Your task to perform on an android device: change text size in settings app Image 0: 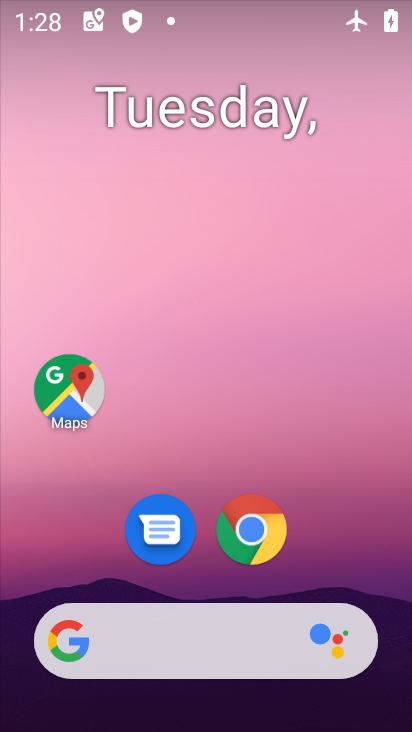
Step 0: drag from (332, 478) to (294, 6)
Your task to perform on an android device: change text size in settings app Image 1: 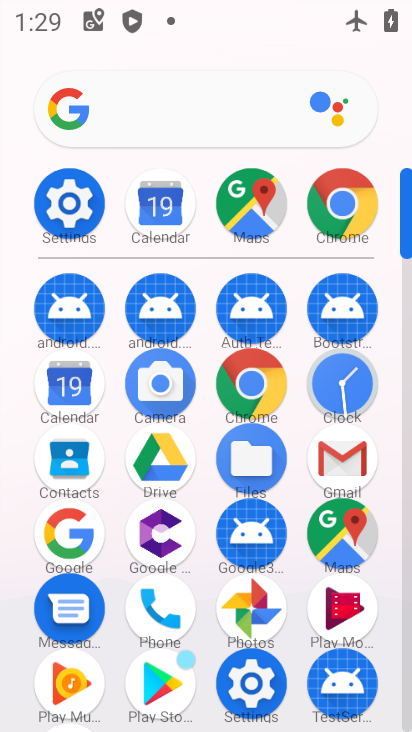
Step 1: click (71, 274)
Your task to perform on an android device: change text size in settings app Image 2: 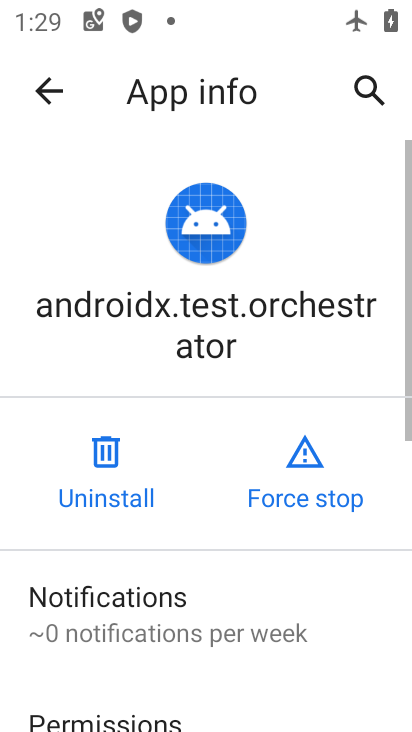
Step 2: press back button
Your task to perform on an android device: change text size in settings app Image 3: 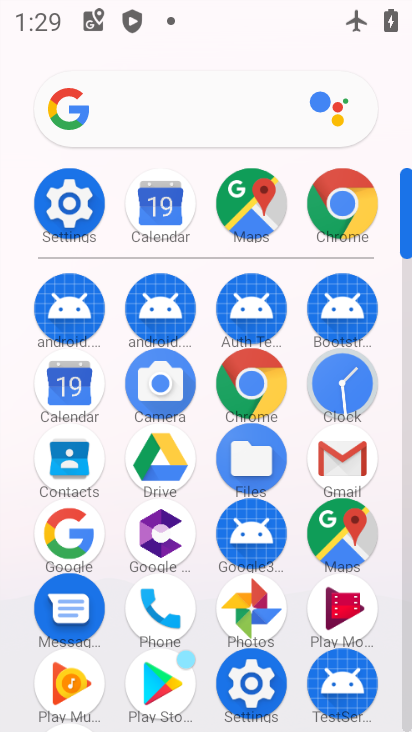
Step 3: click (79, 205)
Your task to perform on an android device: change text size in settings app Image 4: 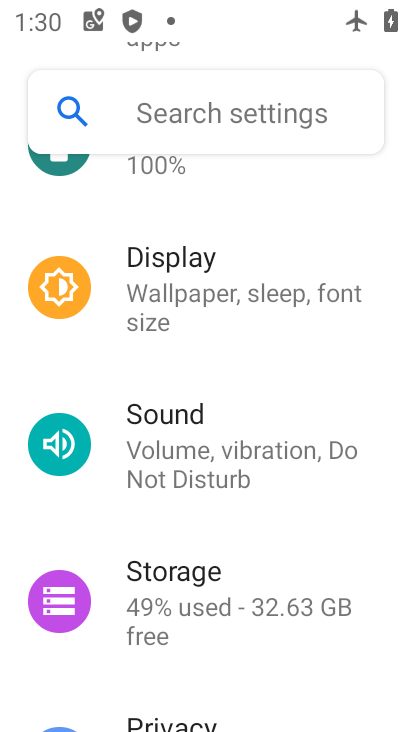
Step 4: click (290, 287)
Your task to perform on an android device: change text size in settings app Image 5: 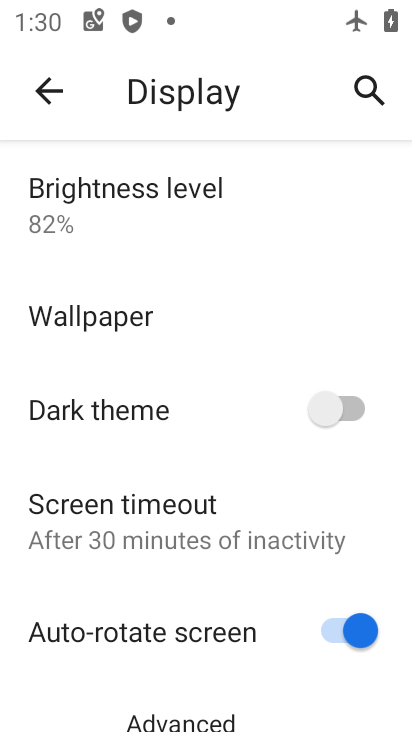
Step 5: drag from (238, 603) to (221, 211)
Your task to perform on an android device: change text size in settings app Image 6: 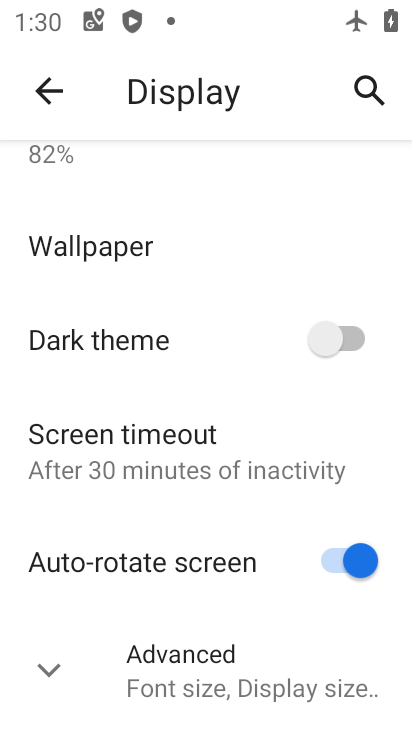
Step 6: click (313, 673)
Your task to perform on an android device: change text size in settings app Image 7: 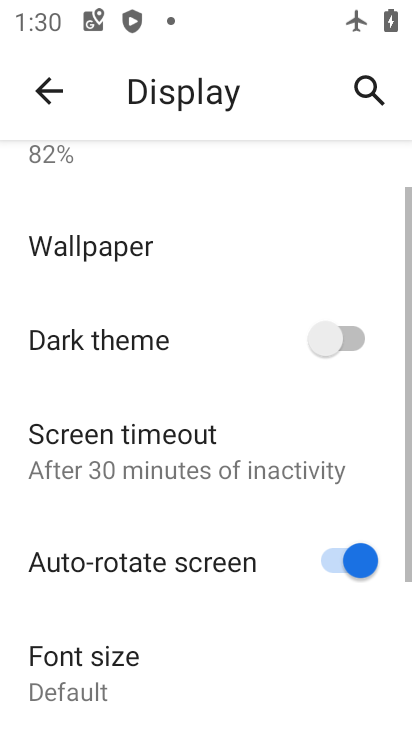
Step 7: drag from (313, 673) to (250, 282)
Your task to perform on an android device: change text size in settings app Image 8: 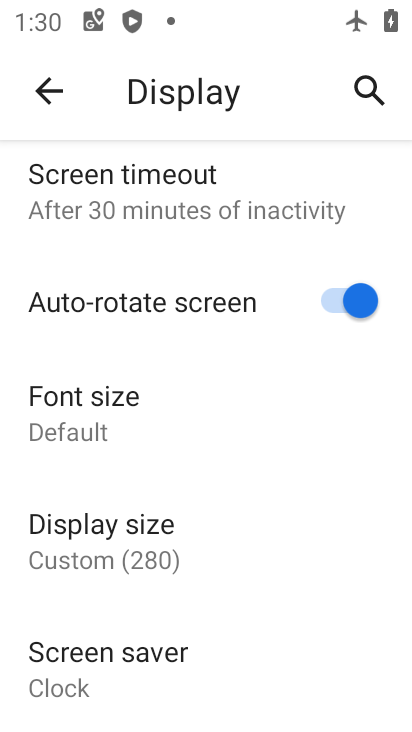
Step 8: click (265, 427)
Your task to perform on an android device: change text size in settings app Image 9: 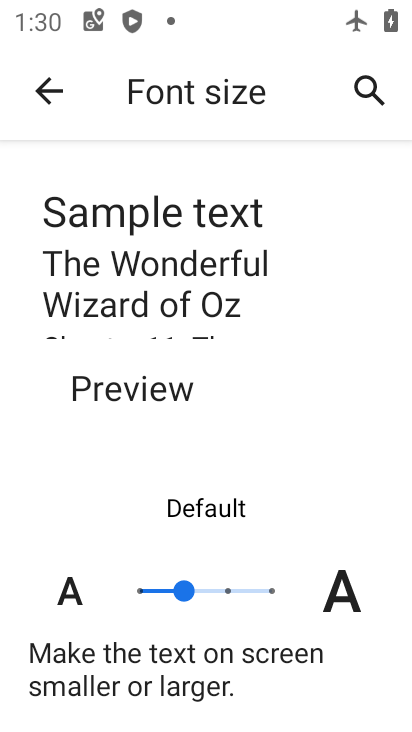
Step 9: click (232, 588)
Your task to perform on an android device: change text size in settings app Image 10: 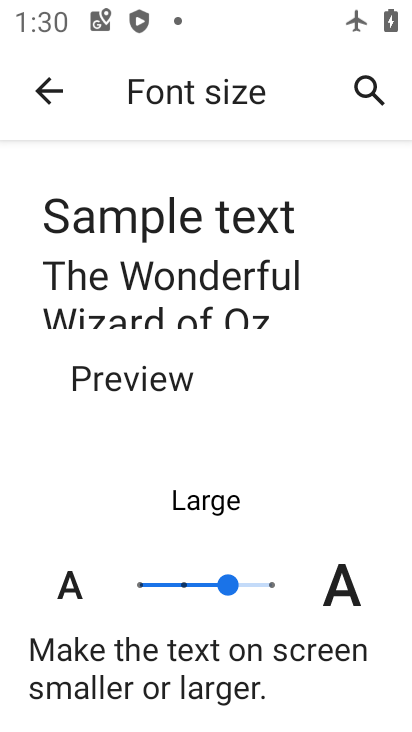
Step 10: task complete